Your task to perform on an android device: Go to network settings Image 0: 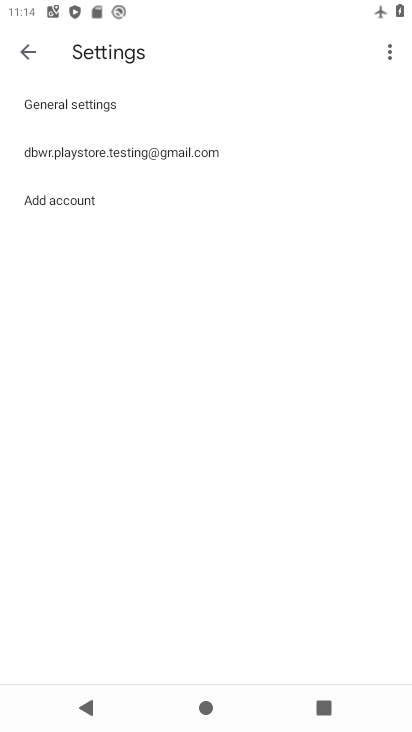
Step 0: press home button
Your task to perform on an android device: Go to network settings Image 1: 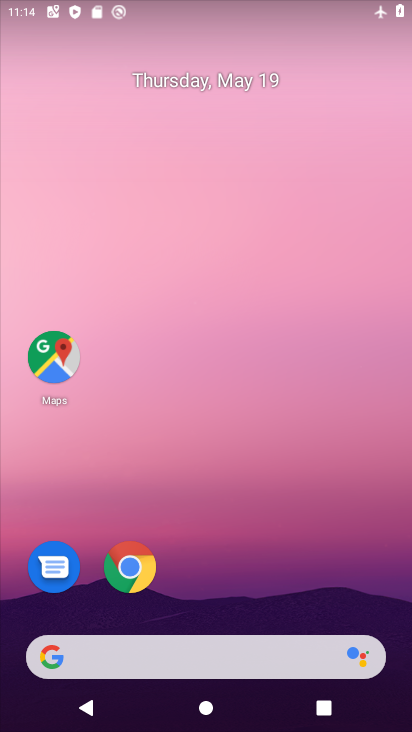
Step 1: drag from (398, 612) to (325, 104)
Your task to perform on an android device: Go to network settings Image 2: 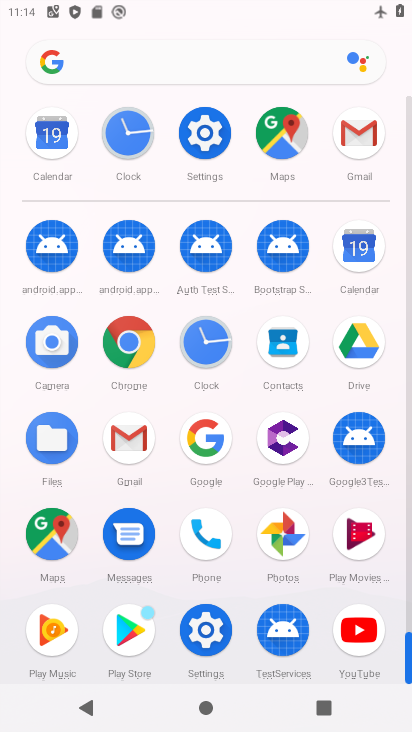
Step 2: click (205, 630)
Your task to perform on an android device: Go to network settings Image 3: 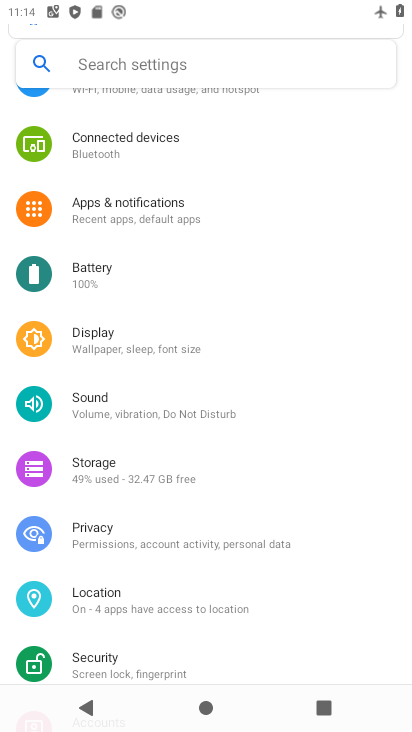
Step 3: drag from (205, 142) to (227, 490)
Your task to perform on an android device: Go to network settings Image 4: 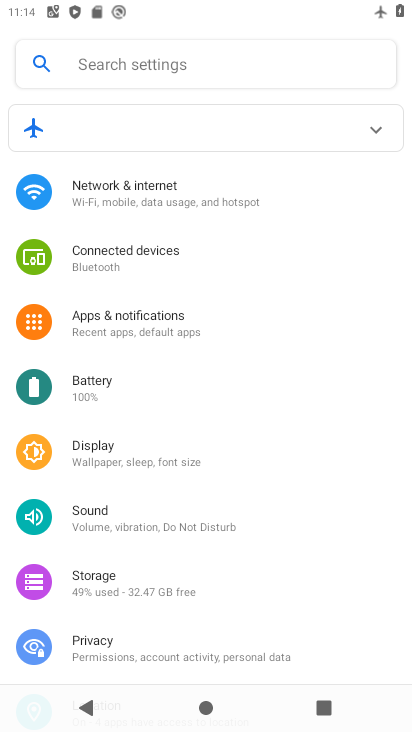
Step 4: click (119, 192)
Your task to perform on an android device: Go to network settings Image 5: 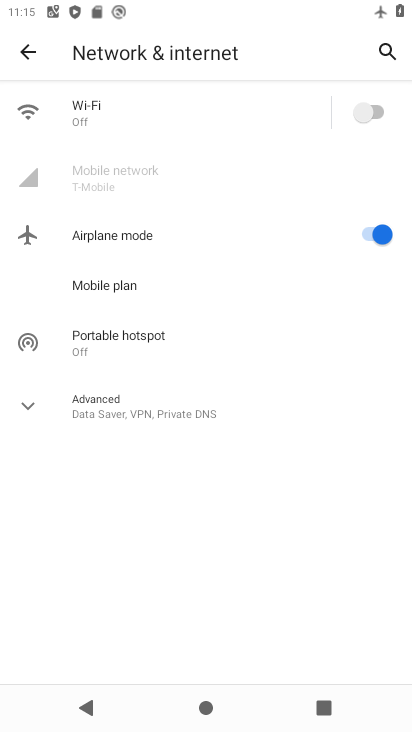
Step 5: task complete